Your task to perform on an android device: Go to wifi settings Image 0: 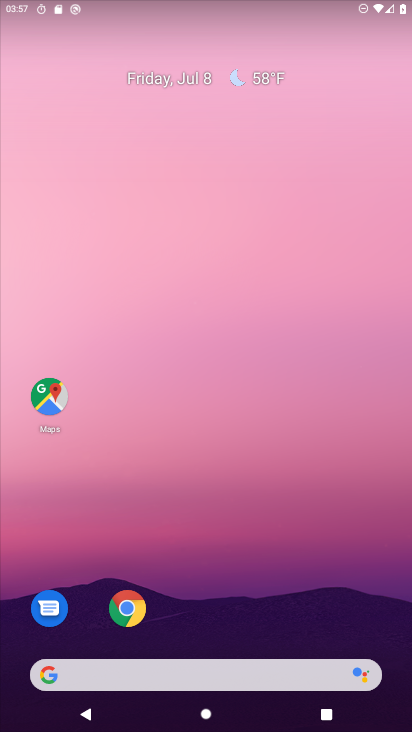
Step 0: drag from (245, 715) to (238, 199)
Your task to perform on an android device: Go to wifi settings Image 1: 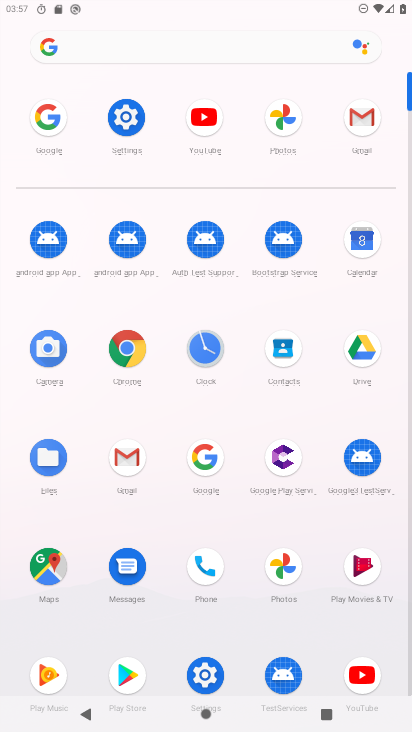
Step 1: click (126, 110)
Your task to perform on an android device: Go to wifi settings Image 2: 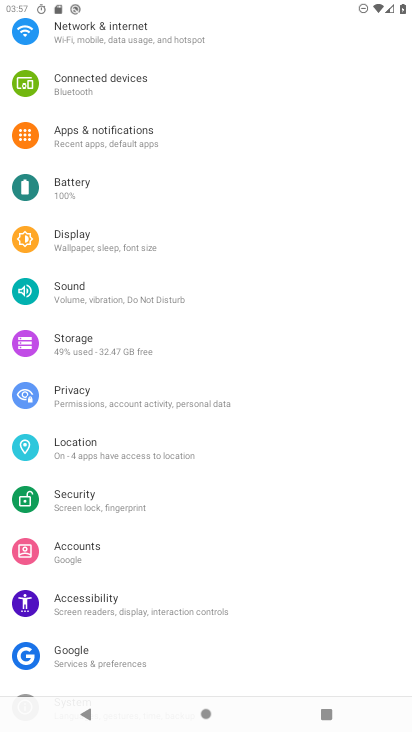
Step 2: drag from (233, 91) to (227, 479)
Your task to perform on an android device: Go to wifi settings Image 3: 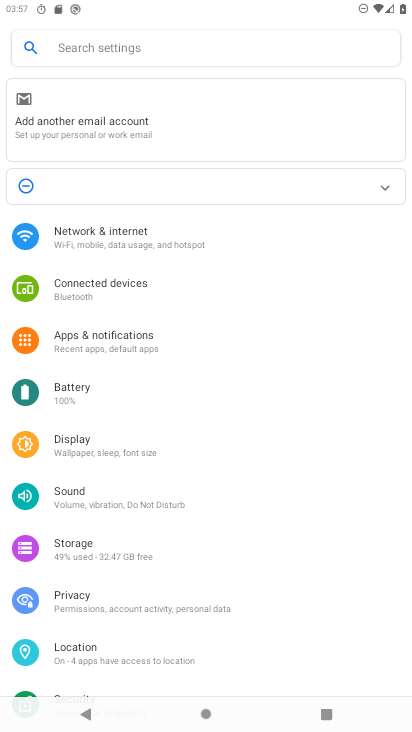
Step 3: click (106, 232)
Your task to perform on an android device: Go to wifi settings Image 4: 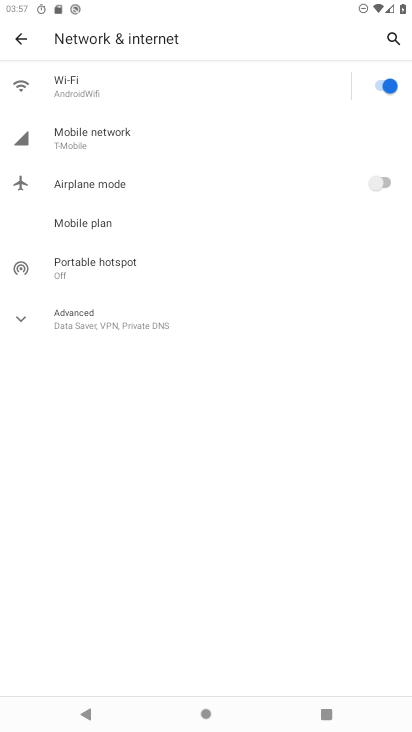
Step 4: click (73, 85)
Your task to perform on an android device: Go to wifi settings Image 5: 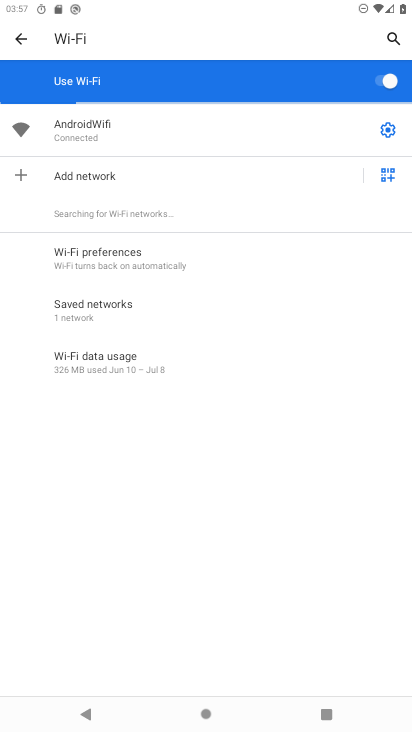
Step 5: task complete